Your task to perform on an android device: Go to network settings Image 0: 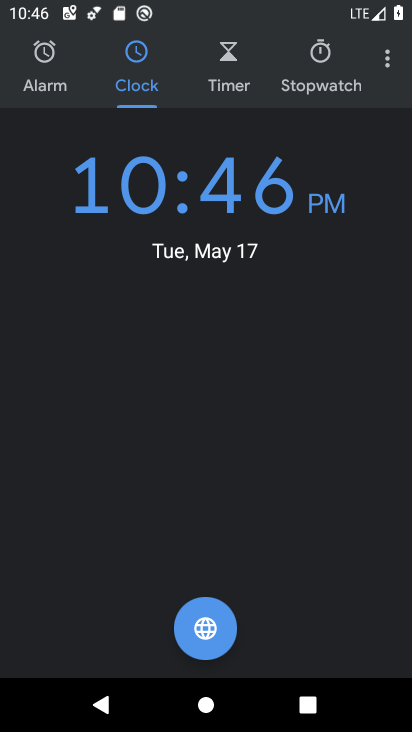
Step 0: press home button
Your task to perform on an android device: Go to network settings Image 1: 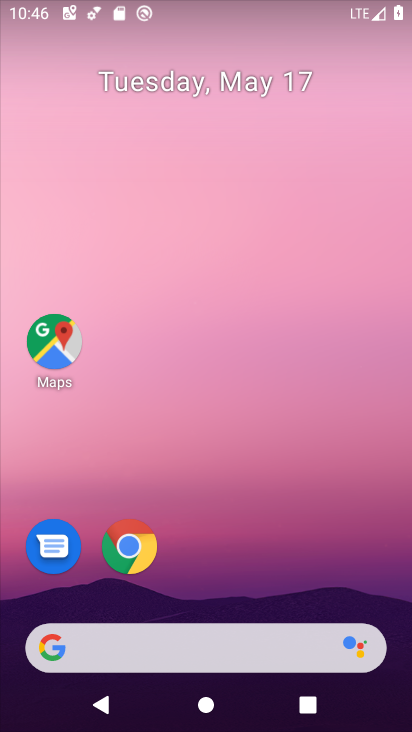
Step 1: drag from (209, 595) to (240, 19)
Your task to perform on an android device: Go to network settings Image 2: 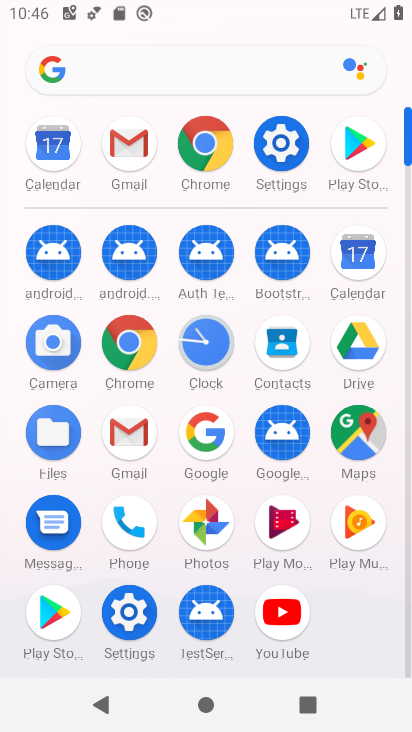
Step 2: click (284, 167)
Your task to perform on an android device: Go to network settings Image 3: 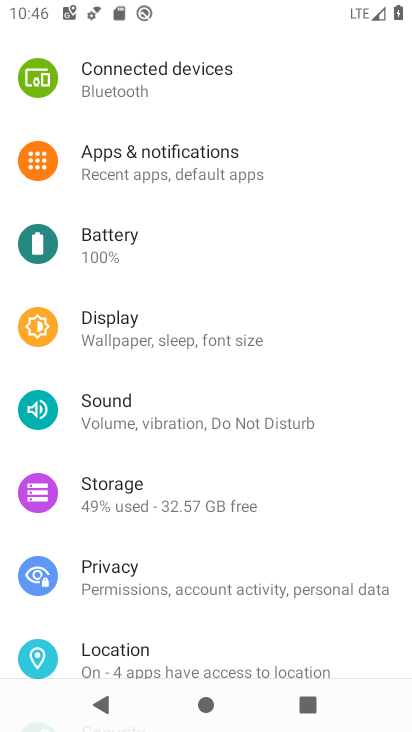
Step 3: drag from (216, 194) to (185, 474)
Your task to perform on an android device: Go to network settings Image 4: 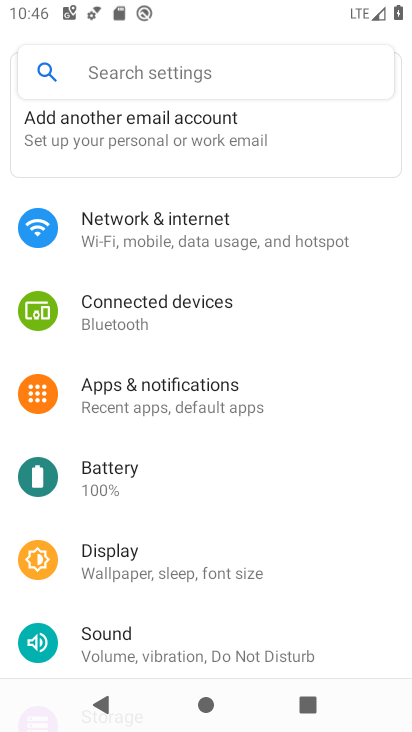
Step 4: click (205, 243)
Your task to perform on an android device: Go to network settings Image 5: 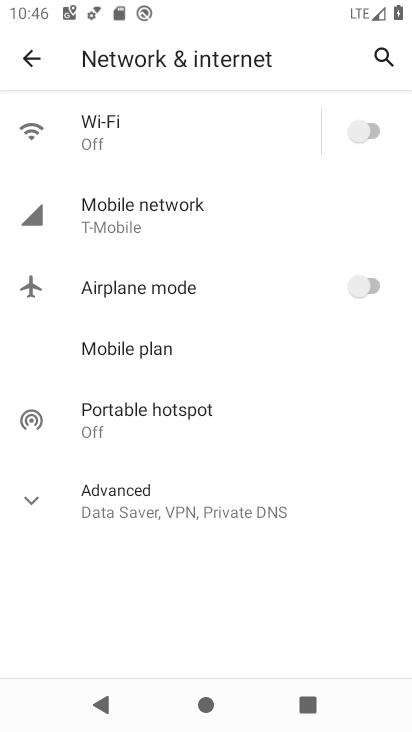
Step 5: task complete